Your task to perform on an android device: See recent photos Image 0: 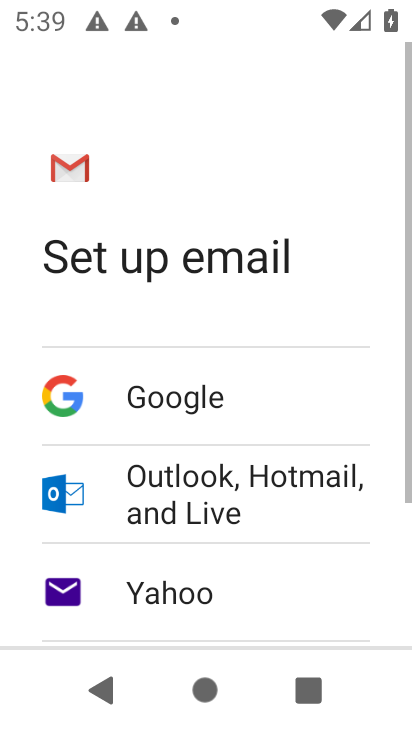
Step 0: press home button
Your task to perform on an android device: See recent photos Image 1: 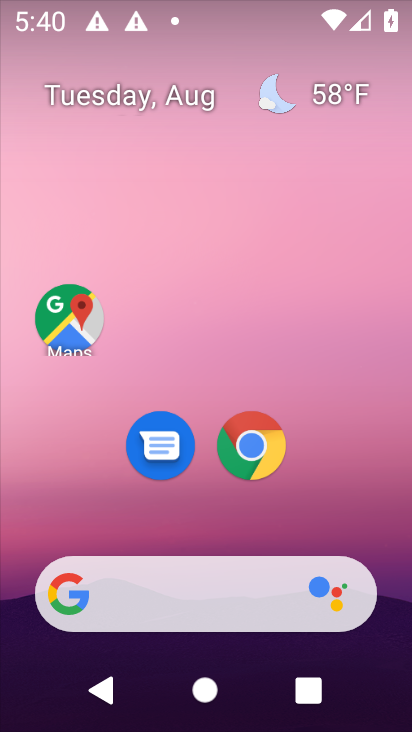
Step 1: drag from (197, 516) to (235, 82)
Your task to perform on an android device: See recent photos Image 2: 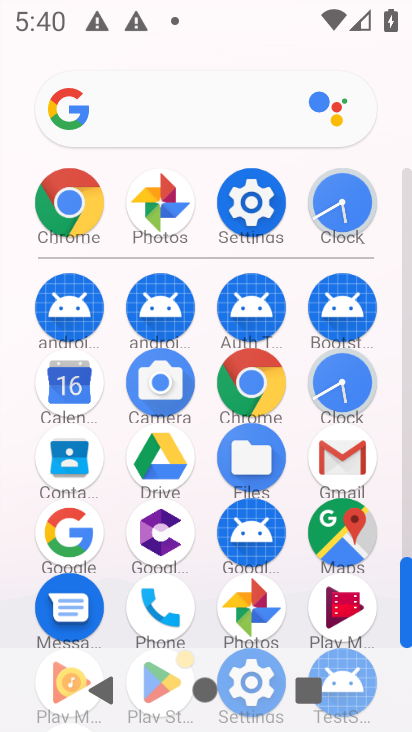
Step 2: click (255, 608)
Your task to perform on an android device: See recent photos Image 3: 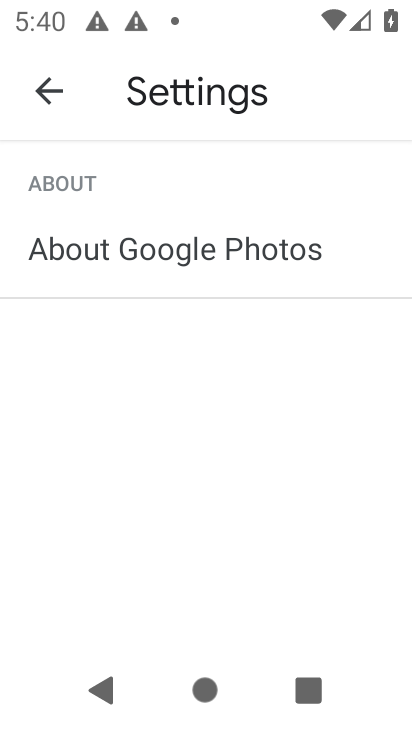
Step 3: click (49, 87)
Your task to perform on an android device: See recent photos Image 4: 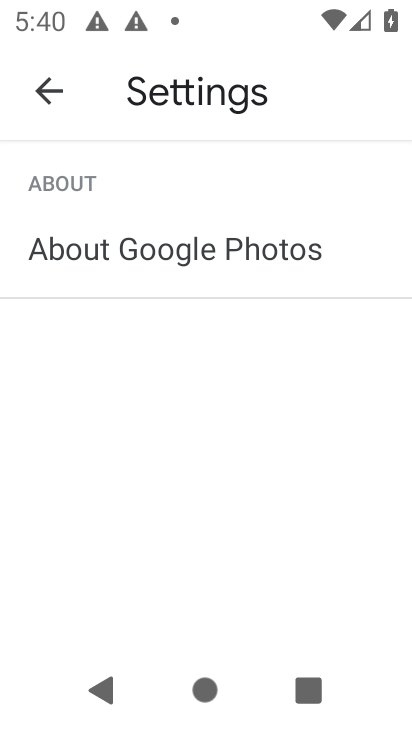
Step 4: click (49, 87)
Your task to perform on an android device: See recent photos Image 5: 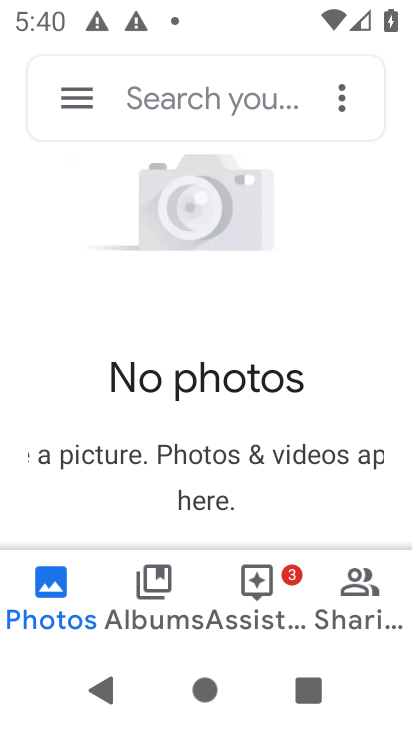
Step 5: task complete